Your task to perform on an android device: find photos in the google photos app Image 0: 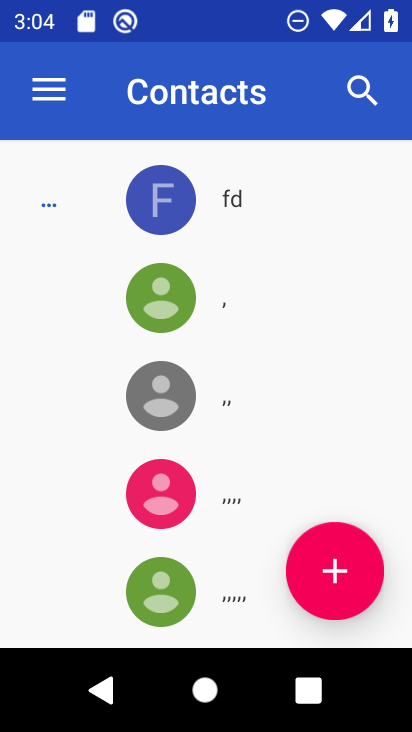
Step 0: press home button
Your task to perform on an android device: find photos in the google photos app Image 1: 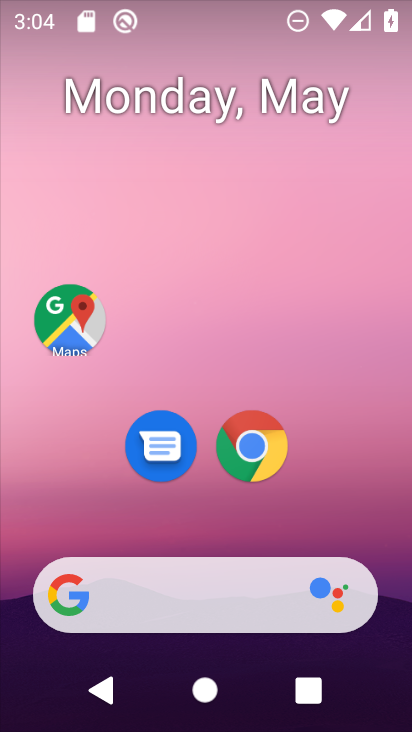
Step 1: drag from (221, 513) to (207, 278)
Your task to perform on an android device: find photos in the google photos app Image 2: 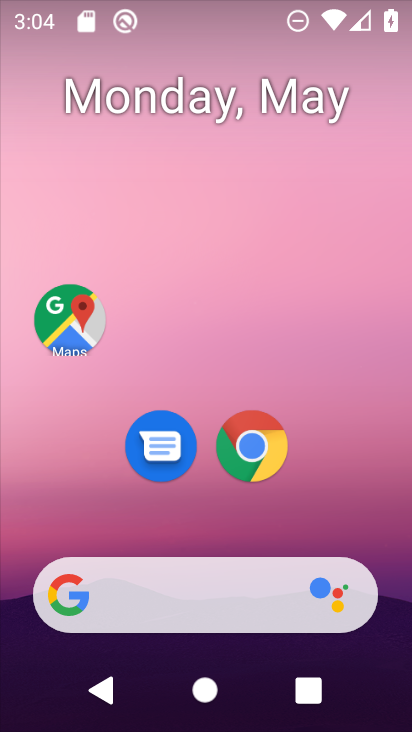
Step 2: drag from (154, 518) to (128, 92)
Your task to perform on an android device: find photos in the google photos app Image 3: 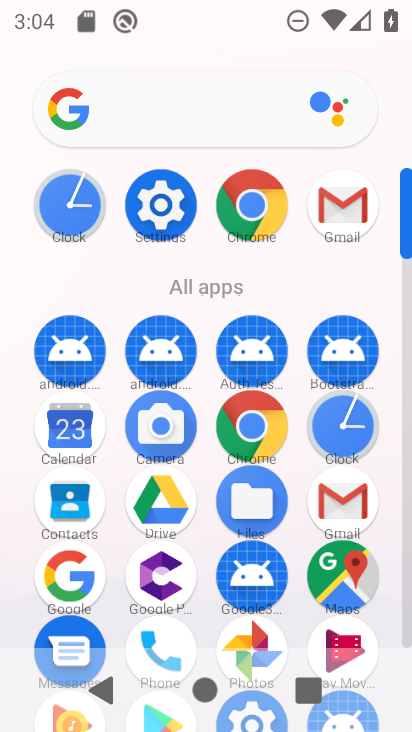
Step 3: click (252, 646)
Your task to perform on an android device: find photos in the google photos app Image 4: 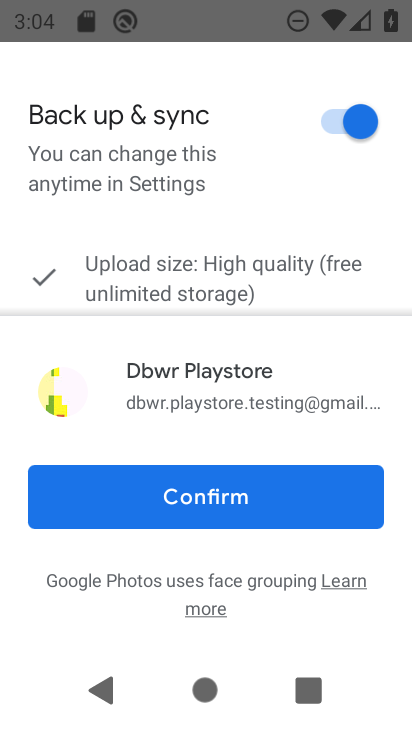
Step 4: click (161, 512)
Your task to perform on an android device: find photos in the google photos app Image 5: 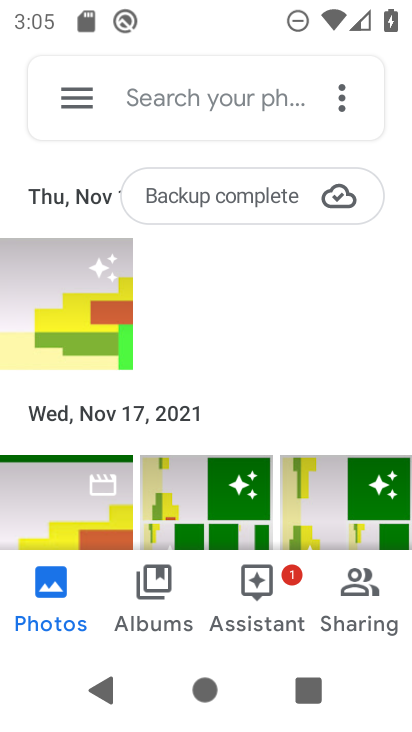
Step 5: task complete